Your task to perform on an android device: Search for pizza restaurants on Maps Image 0: 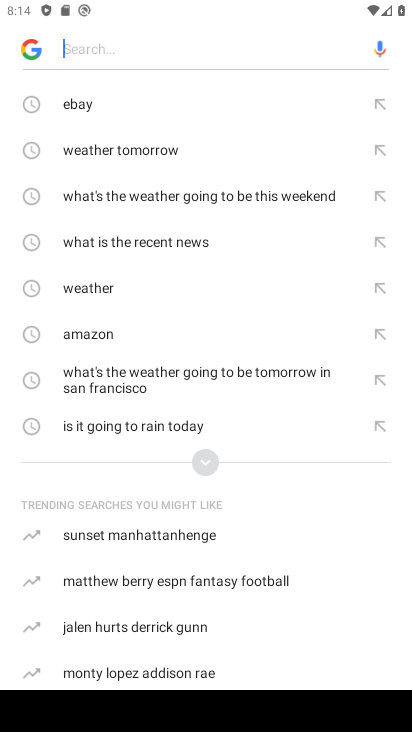
Step 0: press back button
Your task to perform on an android device: Search for pizza restaurants on Maps Image 1: 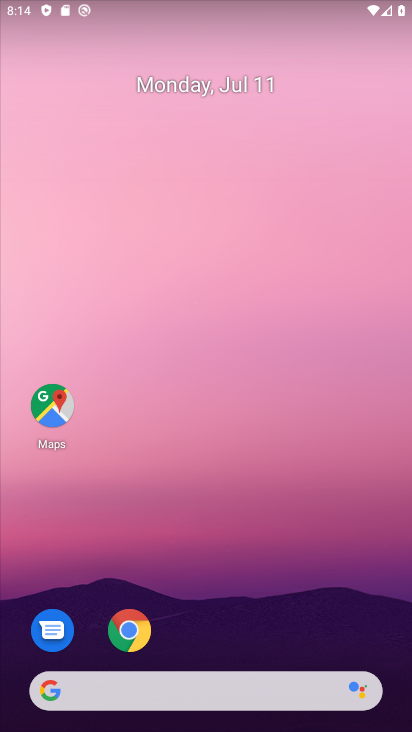
Step 1: click (50, 418)
Your task to perform on an android device: Search for pizza restaurants on Maps Image 2: 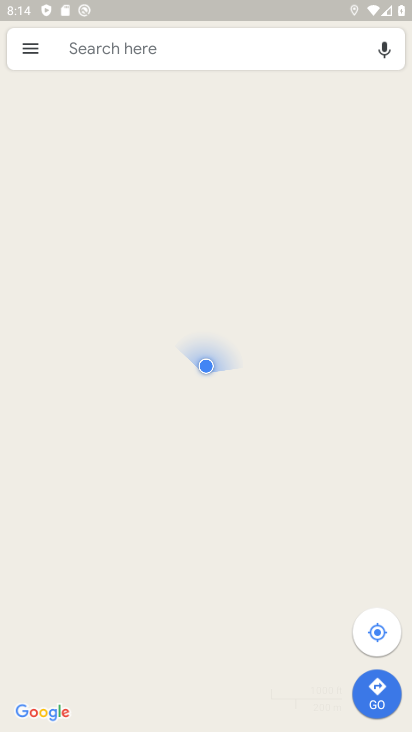
Step 2: click (246, 59)
Your task to perform on an android device: Search for pizza restaurants on Maps Image 3: 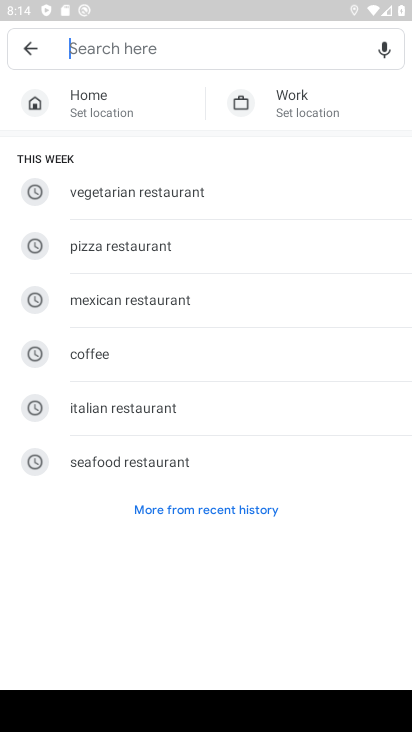
Step 3: click (158, 249)
Your task to perform on an android device: Search for pizza restaurants on Maps Image 4: 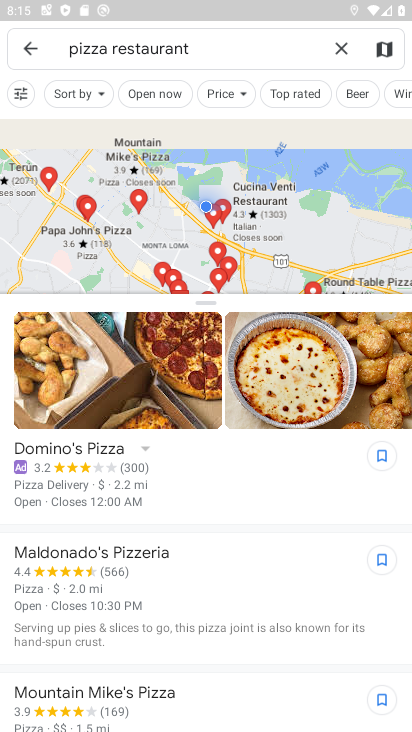
Step 4: task complete